Your task to perform on an android device: Open Google Chrome and click the shortcut for Amazon.com Image 0: 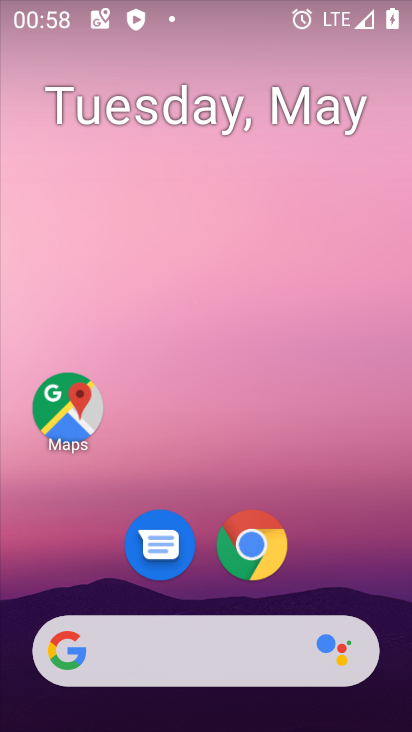
Step 0: click (251, 553)
Your task to perform on an android device: Open Google Chrome and click the shortcut for Amazon.com Image 1: 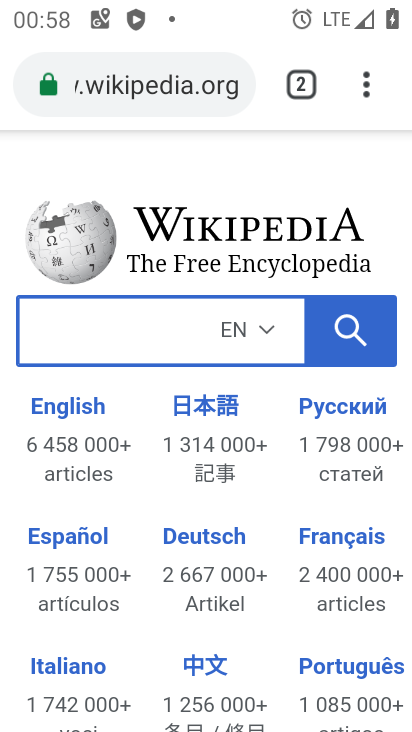
Step 1: click (354, 107)
Your task to perform on an android device: Open Google Chrome and click the shortcut for Amazon.com Image 2: 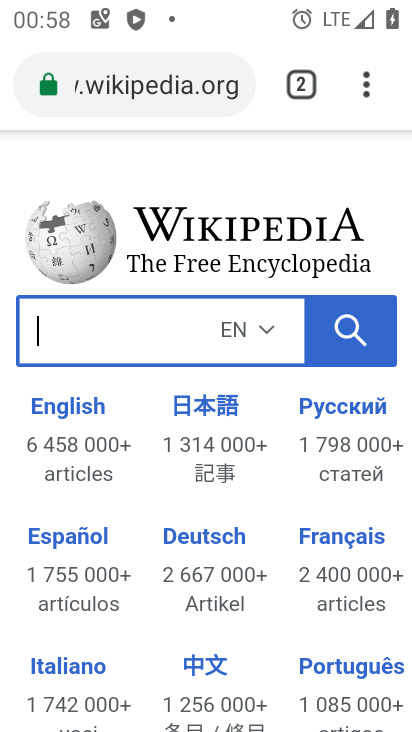
Step 2: click (355, 124)
Your task to perform on an android device: Open Google Chrome and click the shortcut for Amazon.com Image 3: 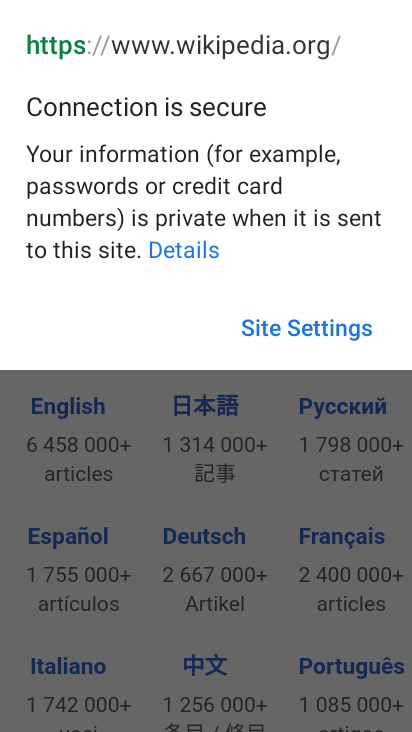
Step 3: click (229, 496)
Your task to perform on an android device: Open Google Chrome and click the shortcut for Amazon.com Image 4: 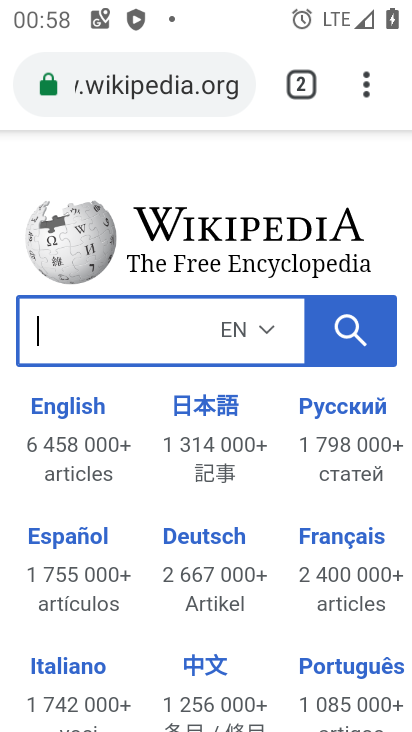
Step 4: click (367, 109)
Your task to perform on an android device: Open Google Chrome and click the shortcut for Amazon.com Image 5: 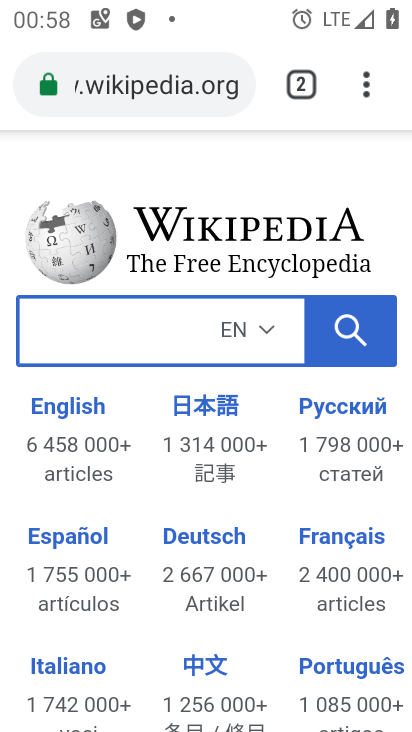
Step 5: click (362, 130)
Your task to perform on an android device: Open Google Chrome and click the shortcut for Amazon.com Image 6: 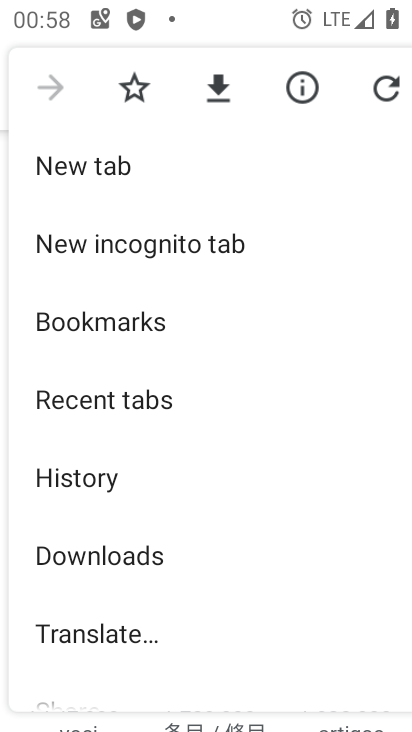
Step 6: click (61, 179)
Your task to perform on an android device: Open Google Chrome and click the shortcut for Amazon.com Image 7: 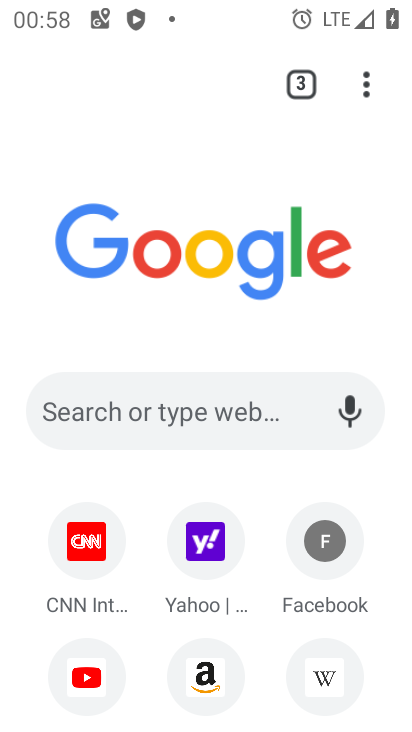
Step 7: click (203, 676)
Your task to perform on an android device: Open Google Chrome and click the shortcut for Amazon.com Image 8: 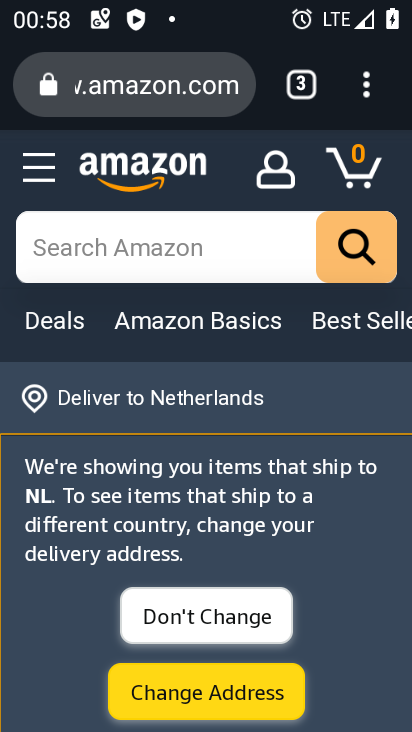
Step 8: task complete